Your task to perform on an android device: Go to Yahoo.com Image 0: 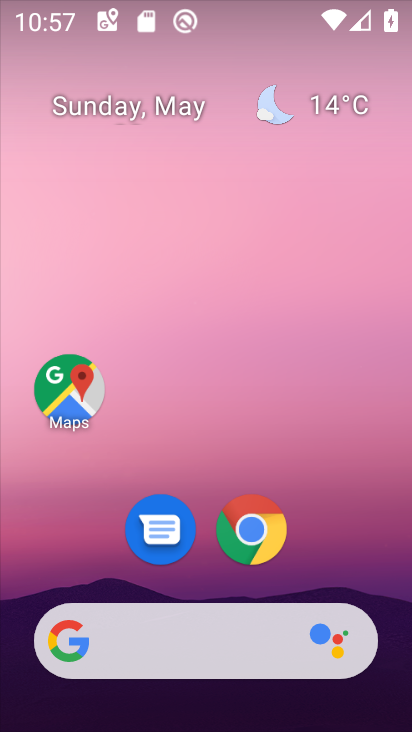
Step 0: click (260, 555)
Your task to perform on an android device: Go to Yahoo.com Image 1: 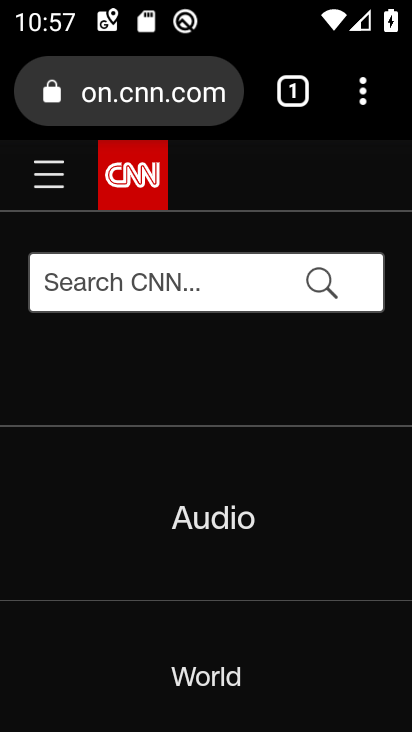
Step 1: click (205, 69)
Your task to perform on an android device: Go to Yahoo.com Image 2: 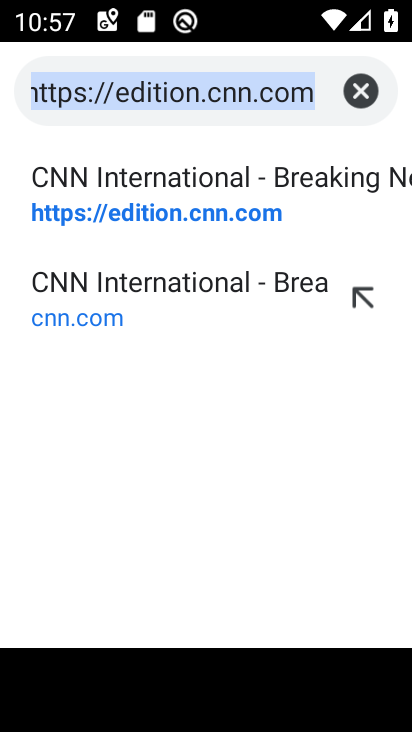
Step 2: type "yahoo.com"
Your task to perform on an android device: Go to Yahoo.com Image 3: 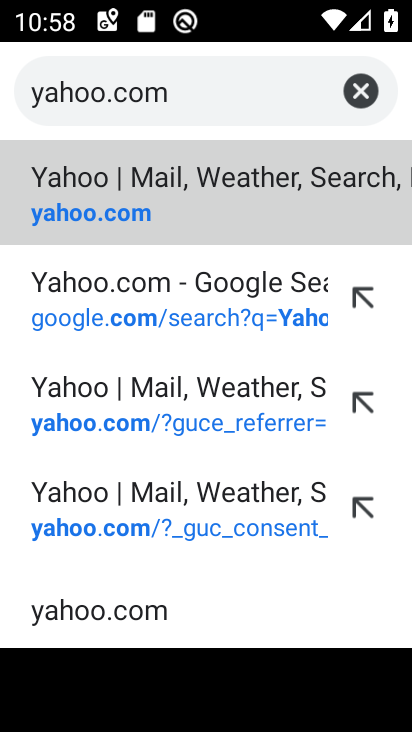
Step 3: click (352, 180)
Your task to perform on an android device: Go to Yahoo.com Image 4: 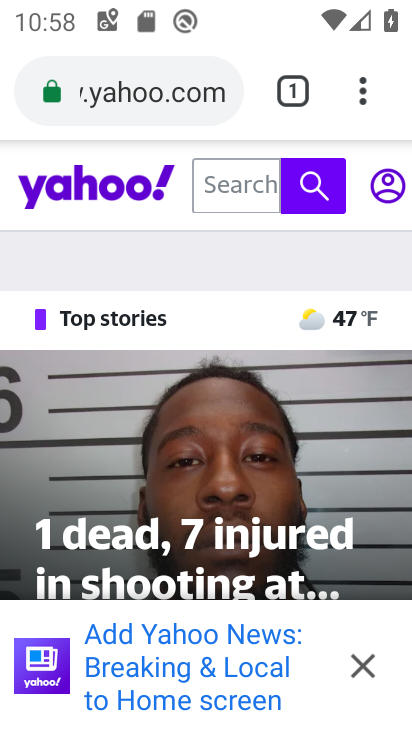
Step 4: task complete